Your task to perform on an android device: Open calendar and show me the third week of next month Image 0: 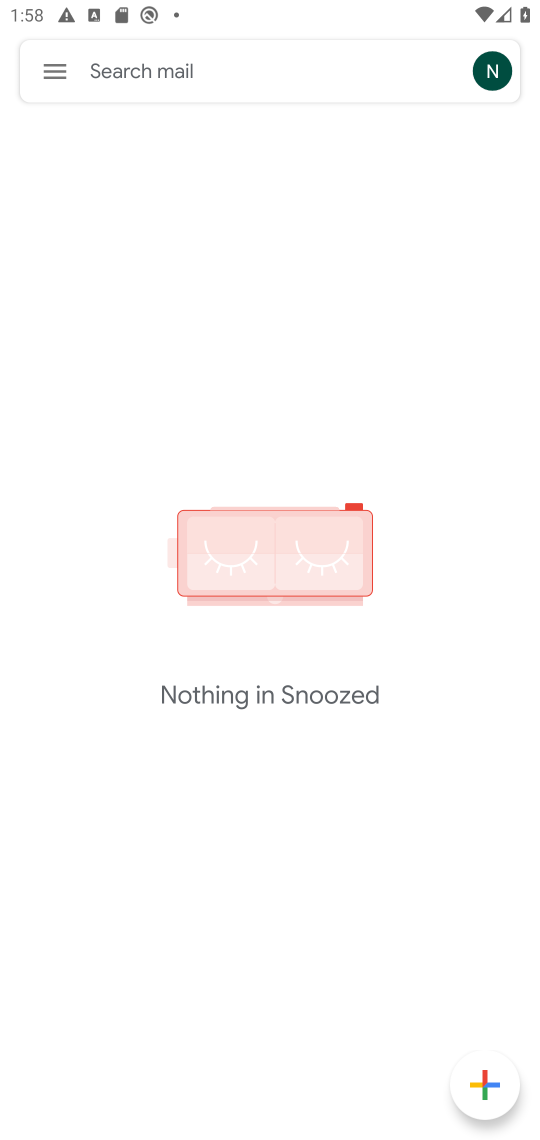
Step 0: press home button
Your task to perform on an android device: Open calendar and show me the third week of next month Image 1: 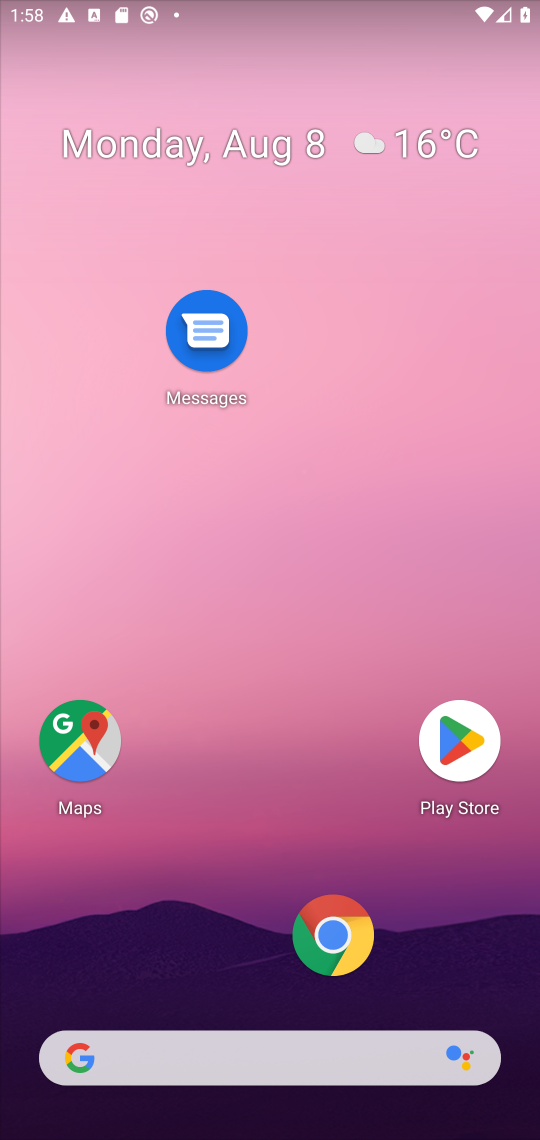
Step 1: drag from (302, 1060) to (325, 6)
Your task to perform on an android device: Open calendar and show me the third week of next month Image 2: 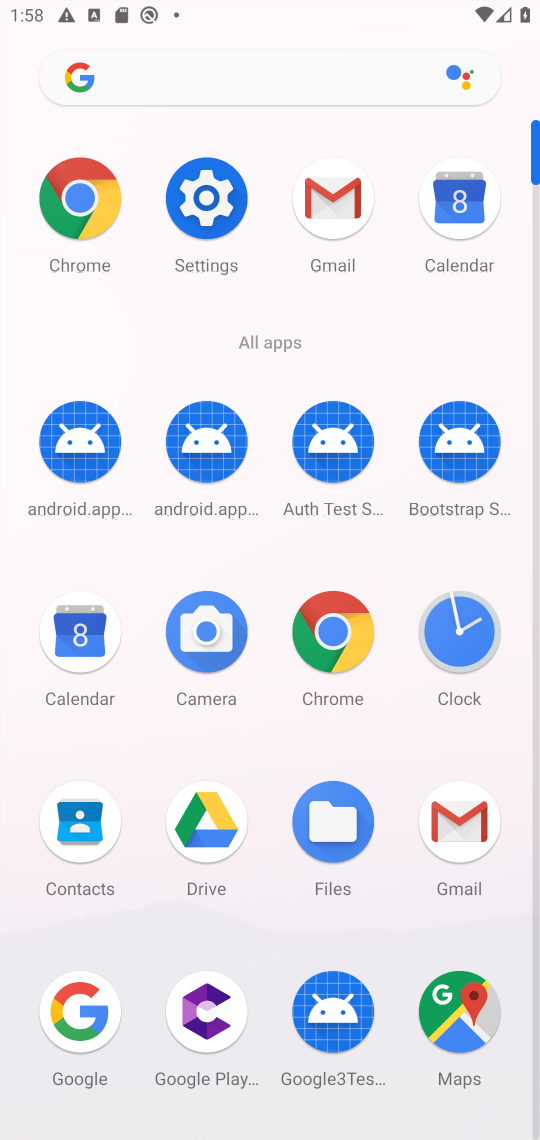
Step 2: click (74, 650)
Your task to perform on an android device: Open calendar and show me the third week of next month Image 3: 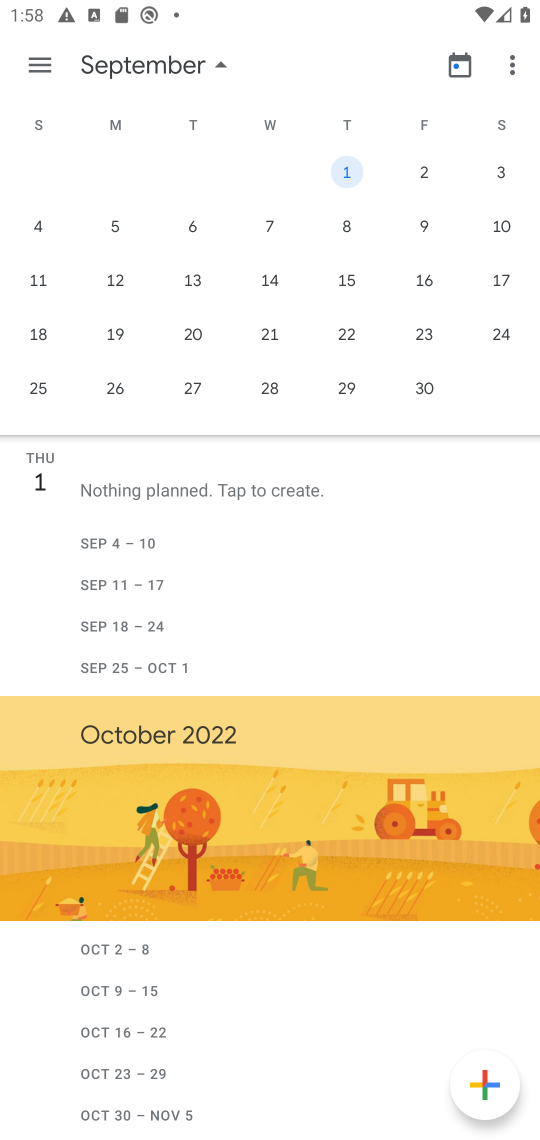
Step 3: drag from (55, 250) to (494, 384)
Your task to perform on an android device: Open calendar and show me the third week of next month Image 4: 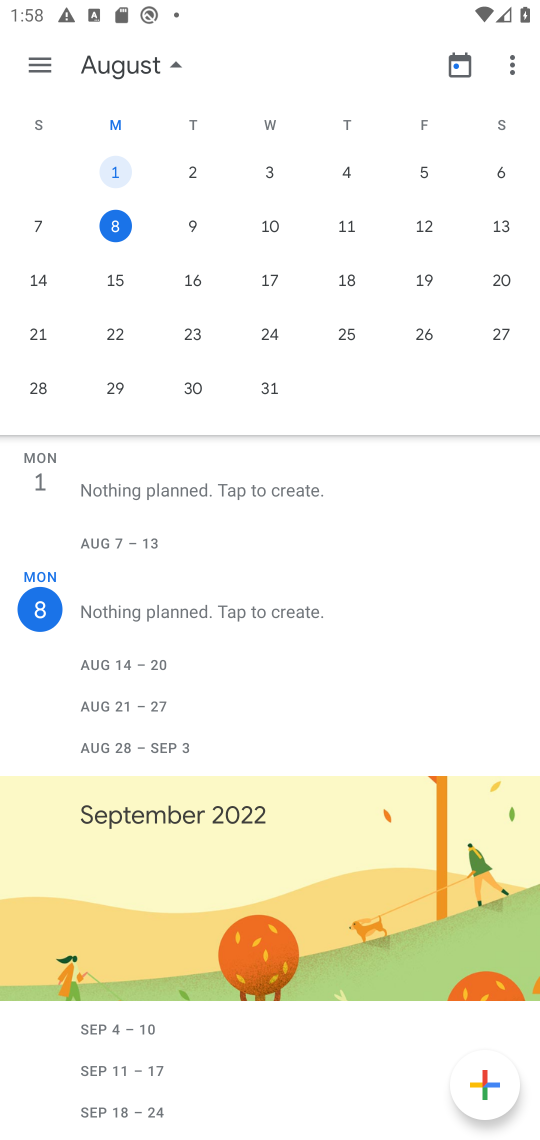
Step 4: drag from (496, 250) to (28, 425)
Your task to perform on an android device: Open calendar and show me the third week of next month Image 5: 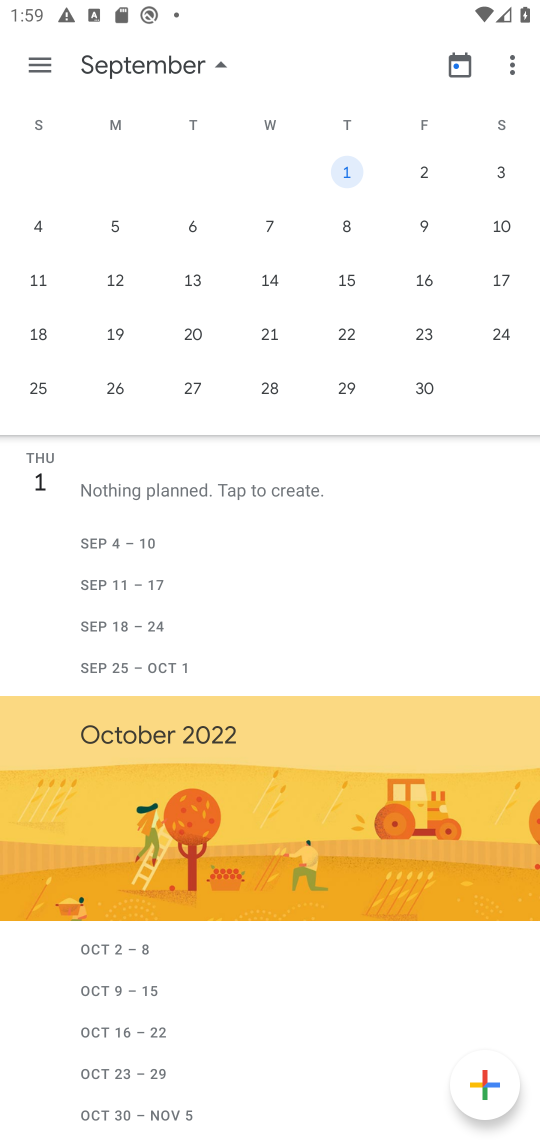
Step 5: click (276, 282)
Your task to perform on an android device: Open calendar and show me the third week of next month Image 6: 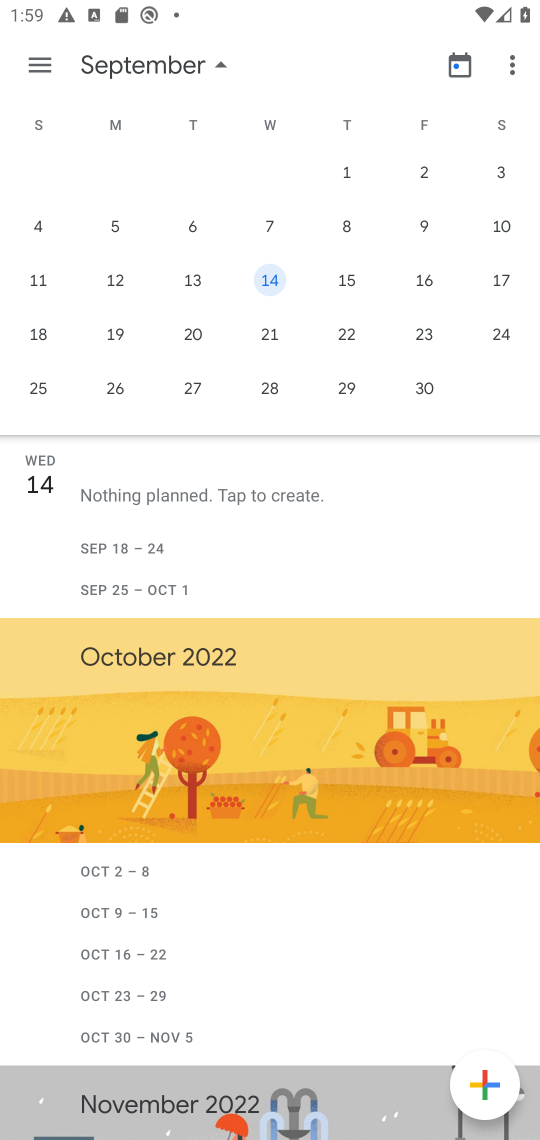
Step 6: click (35, 66)
Your task to perform on an android device: Open calendar and show me the third week of next month Image 7: 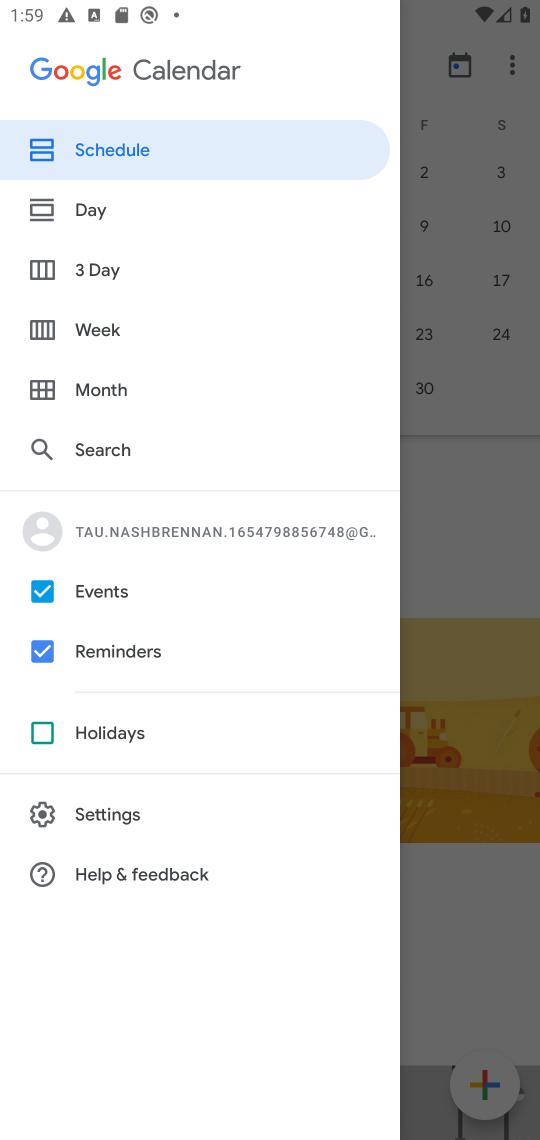
Step 7: click (92, 338)
Your task to perform on an android device: Open calendar and show me the third week of next month Image 8: 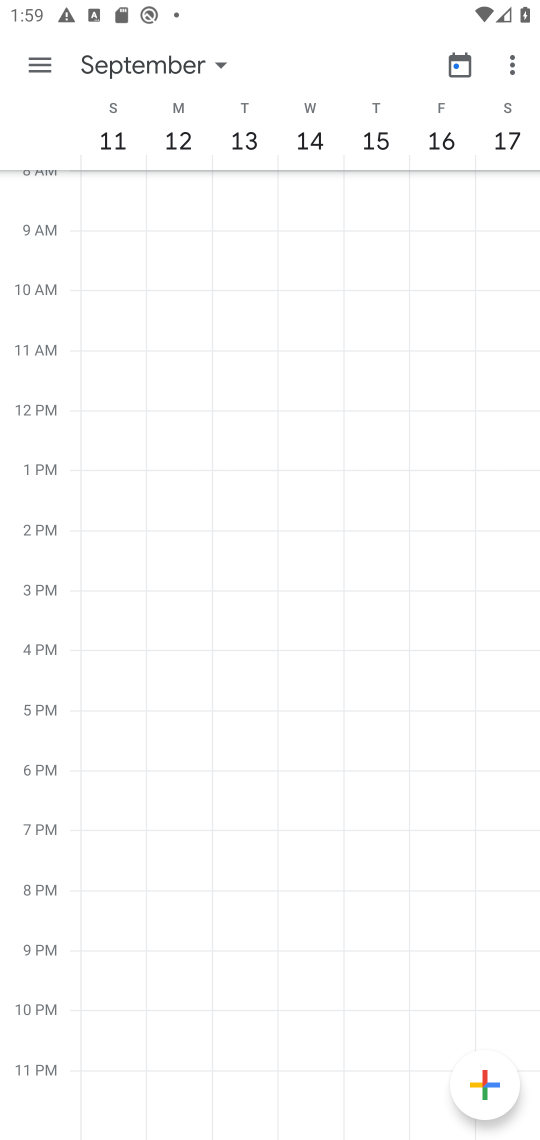
Step 8: task complete